Your task to perform on an android device: read, delete, or share a saved page in the chrome app Image 0: 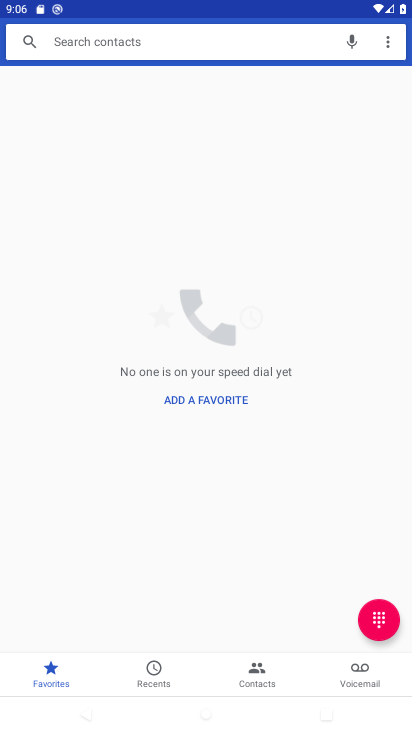
Step 0: press back button
Your task to perform on an android device: read, delete, or share a saved page in the chrome app Image 1: 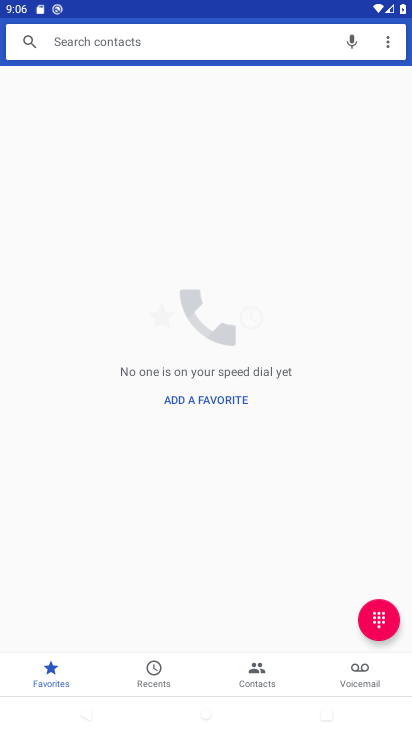
Step 1: press back button
Your task to perform on an android device: read, delete, or share a saved page in the chrome app Image 2: 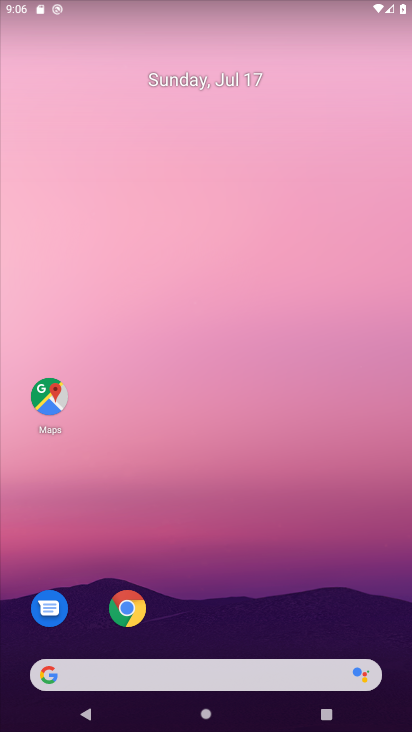
Step 2: drag from (252, 708) to (223, 191)
Your task to perform on an android device: read, delete, or share a saved page in the chrome app Image 3: 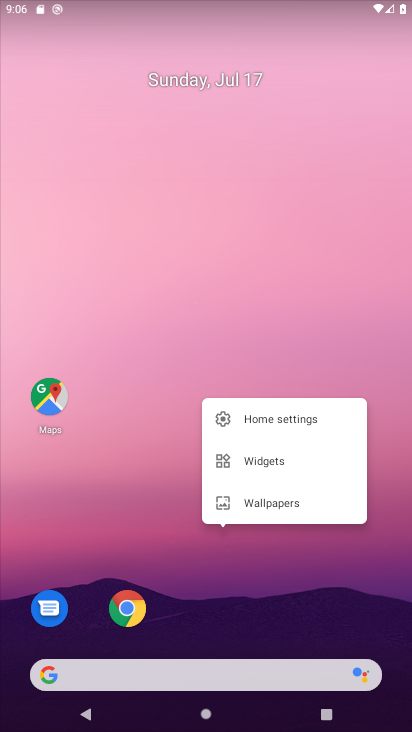
Step 3: drag from (278, 605) to (274, 191)
Your task to perform on an android device: read, delete, or share a saved page in the chrome app Image 4: 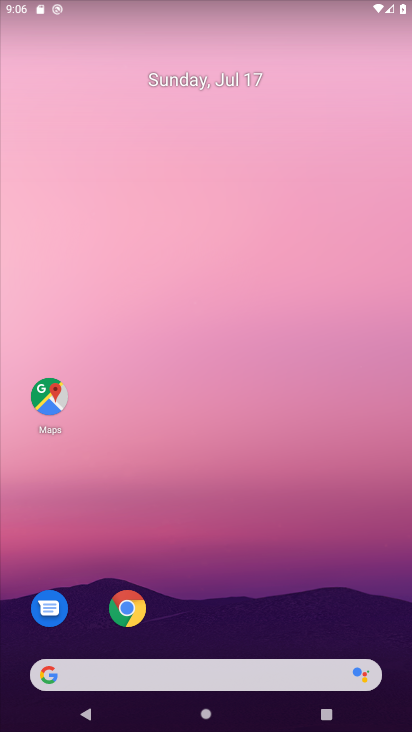
Step 4: drag from (202, 459) to (206, 148)
Your task to perform on an android device: read, delete, or share a saved page in the chrome app Image 5: 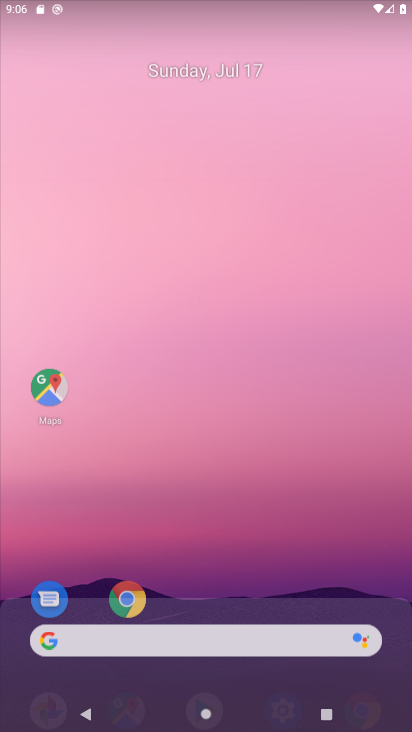
Step 5: drag from (189, 454) to (142, 84)
Your task to perform on an android device: read, delete, or share a saved page in the chrome app Image 6: 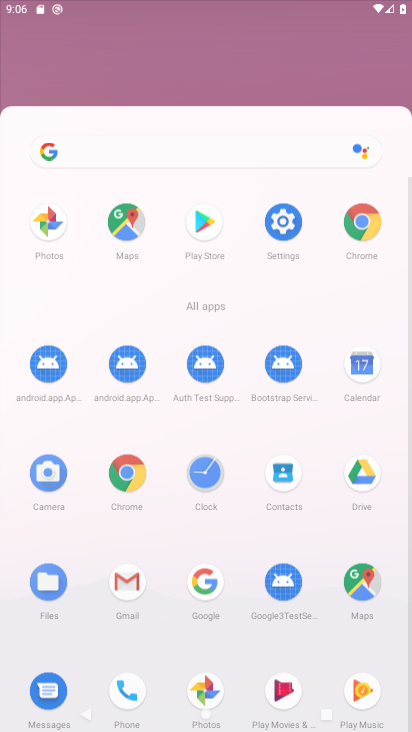
Step 6: drag from (209, 563) to (177, 272)
Your task to perform on an android device: read, delete, or share a saved page in the chrome app Image 7: 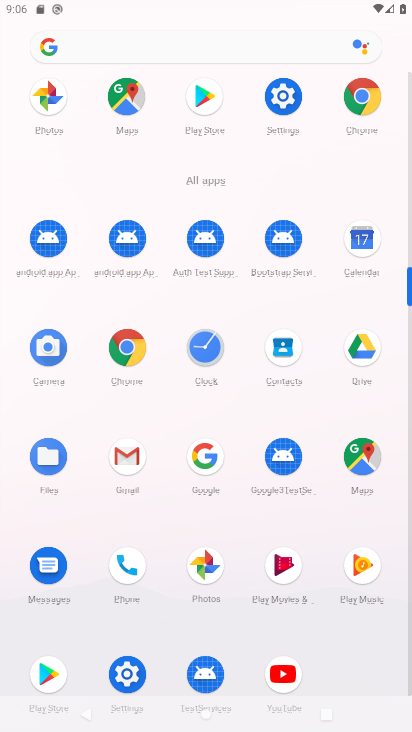
Step 7: click (286, 82)
Your task to perform on an android device: read, delete, or share a saved page in the chrome app Image 8: 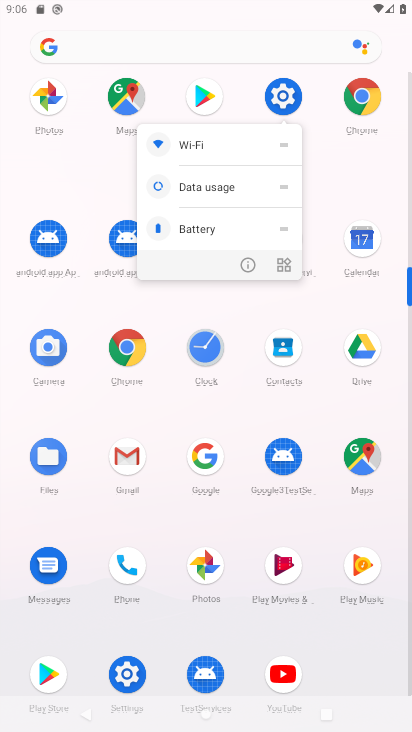
Step 8: click (286, 83)
Your task to perform on an android device: read, delete, or share a saved page in the chrome app Image 9: 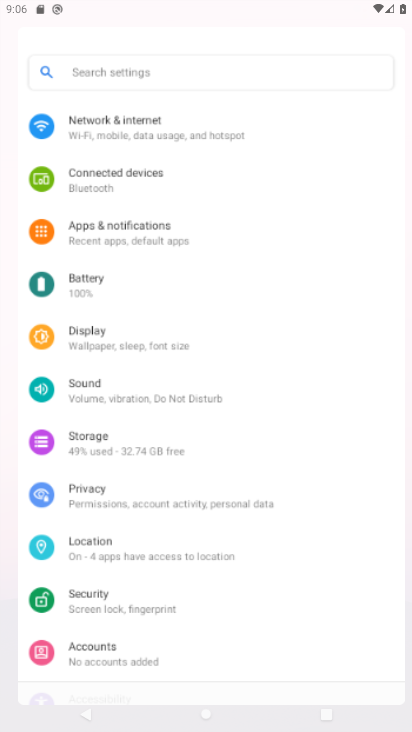
Step 9: click (285, 85)
Your task to perform on an android device: read, delete, or share a saved page in the chrome app Image 10: 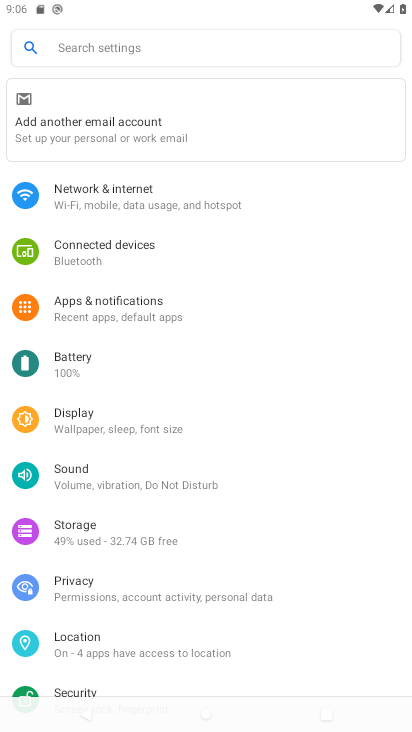
Step 10: press back button
Your task to perform on an android device: read, delete, or share a saved page in the chrome app Image 11: 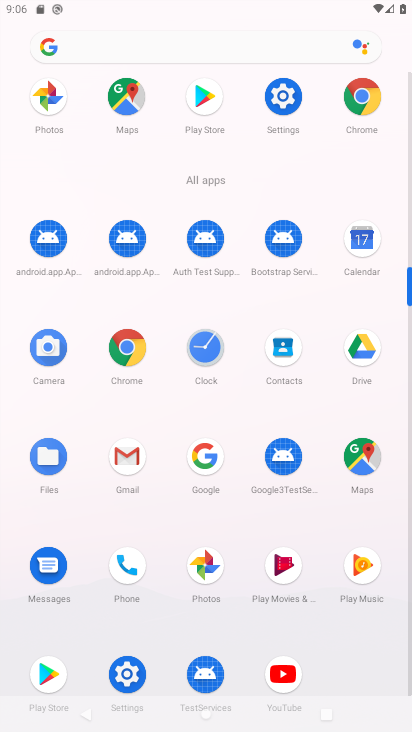
Step 11: click (369, 105)
Your task to perform on an android device: read, delete, or share a saved page in the chrome app Image 12: 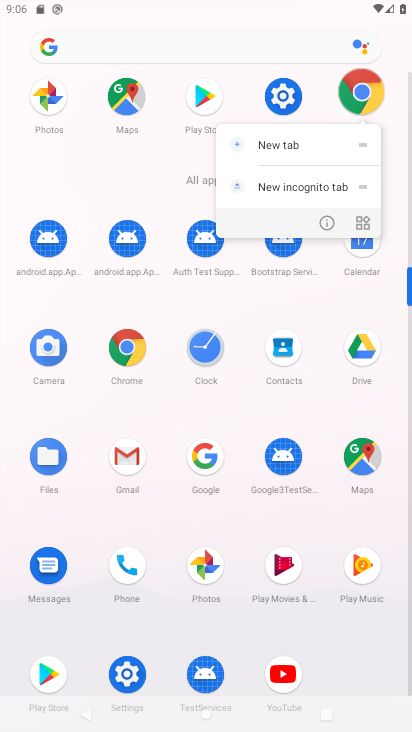
Step 12: click (368, 100)
Your task to perform on an android device: read, delete, or share a saved page in the chrome app Image 13: 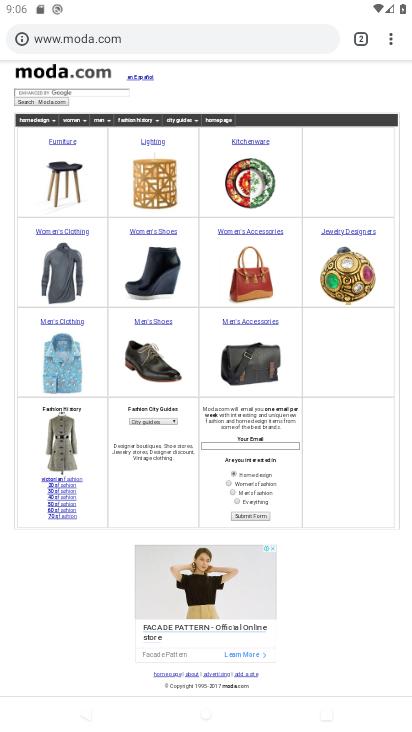
Step 13: drag from (388, 40) to (257, 258)
Your task to perform on an android device: read, delete, or share a saved page in the chrome app Image 14: 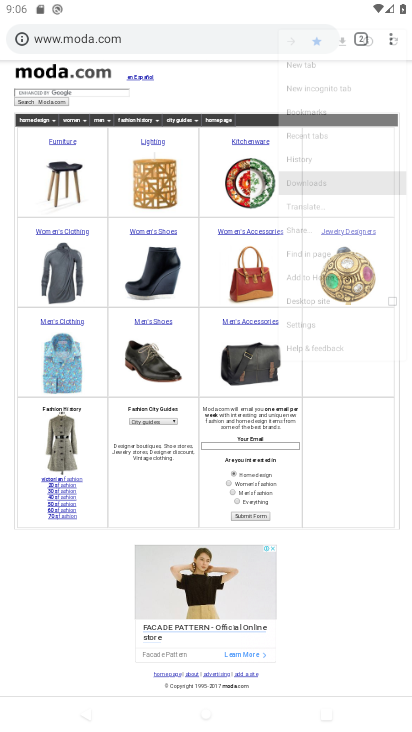
Step 14: click (264, 262)
Your task to perform on an android device: read, delete, or share a saved page in the chrome app Image 15: 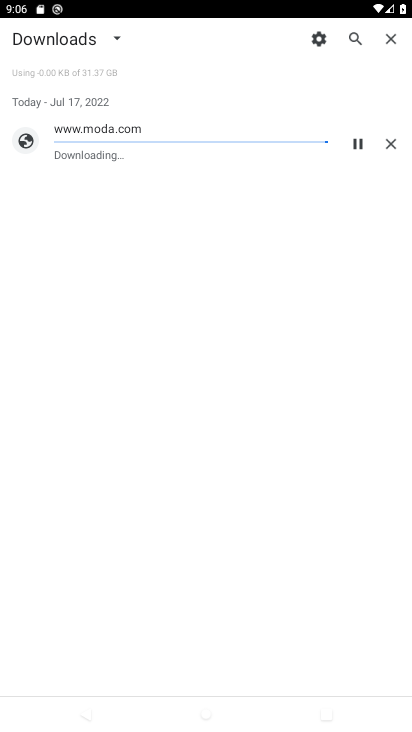
Step 15: drag from (115, 40) to (120, 146)
Your task to perform on an android device: read, delete, or share a saved page in the chrome app Image 16: 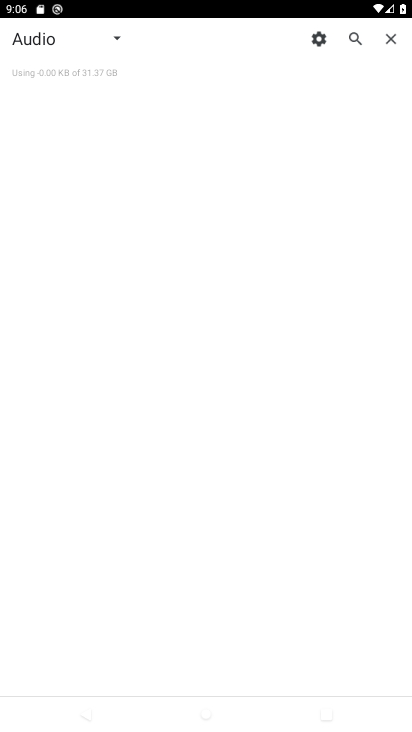
Step 16: click (88, 113)
Your task to perform on an android device: read, delete, or share a saved page in the chrome app Image 17: 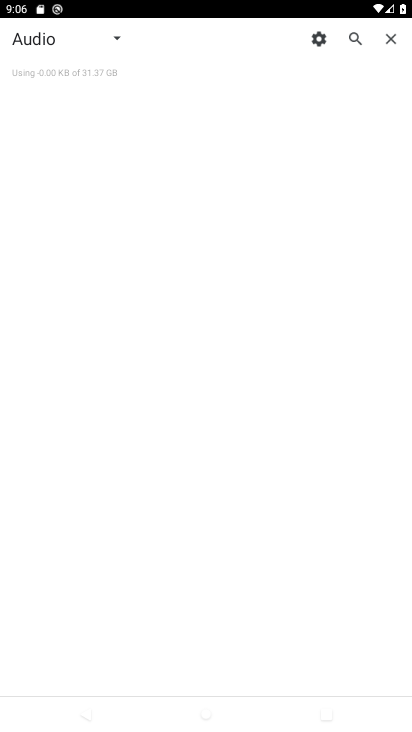
Step 17: task complete